Your task to perform on an android device: turn vacation reply on in the gmail app Image 0: 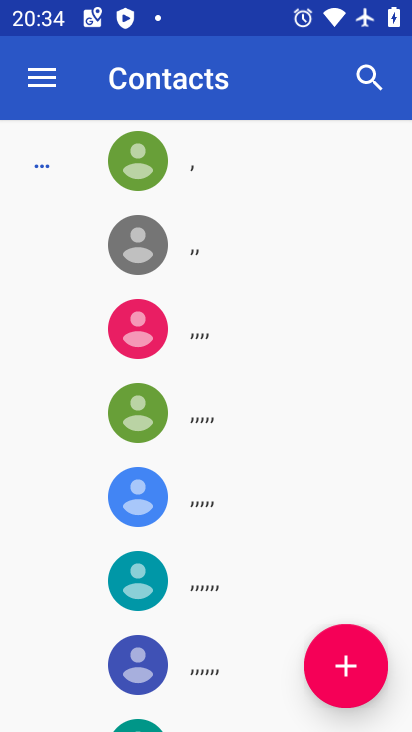
Step 0: press home button
Your task to perform on an android device: turn vacation reply on in the gmail app Image 1: 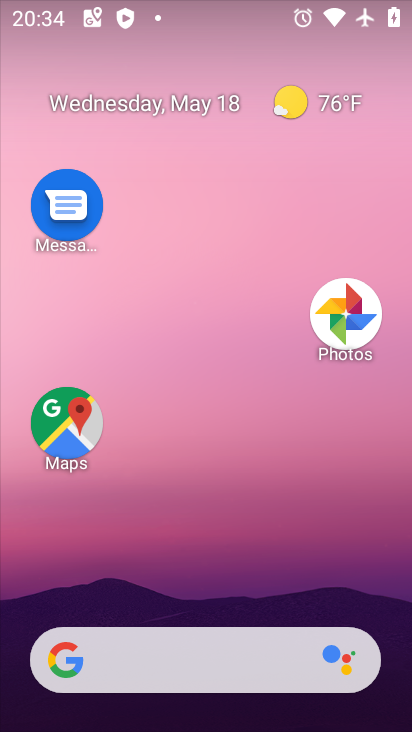
Step 1: drag from (216, 610) to (289, 51)
Your task to perform on an android device: turn vacation reply on in the gmail app Image 2: 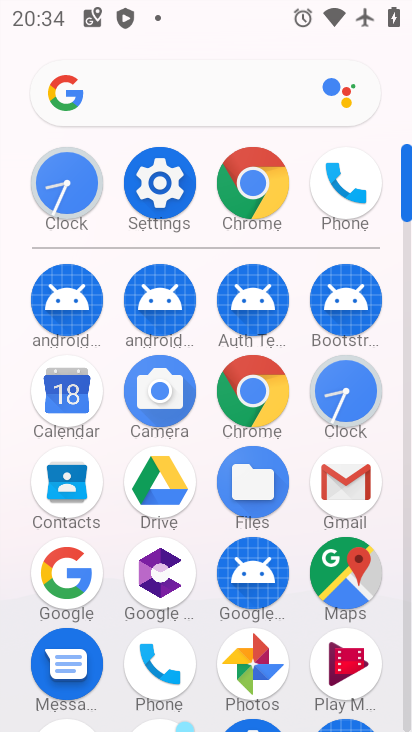
Step 2: click (347, 477)
Your task to perform on an android device: turn vacation reply on in the gmail app Image 3: 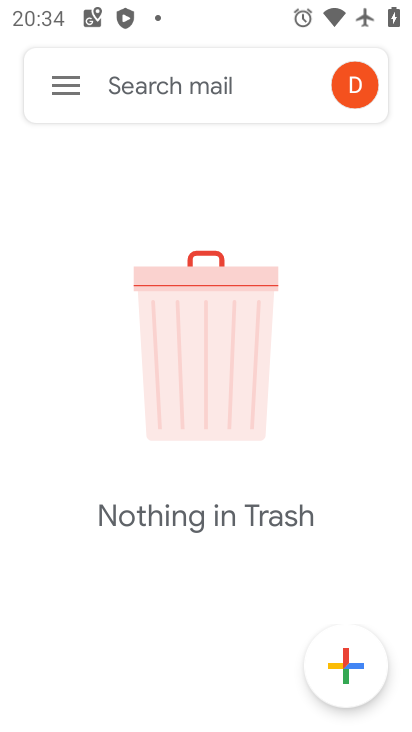
Step 3: click (78, 76)
Your task to perform on an android device: turn vacation reply on in the gmail app Image 4: 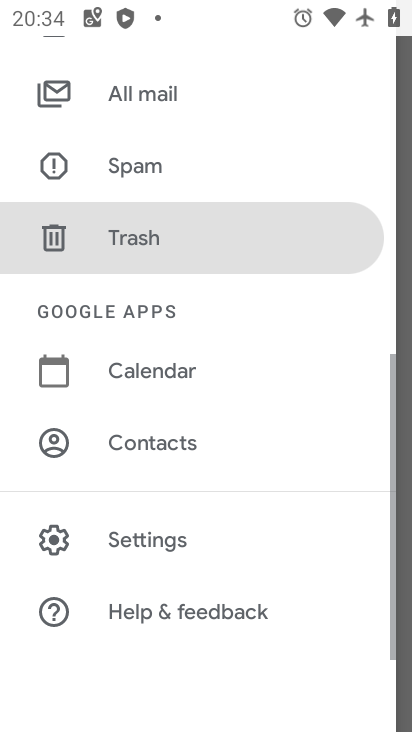
Step 4: click (143, 522)
Your task to perform on an android device: turn vacation reply on in the gmail app Image 5: 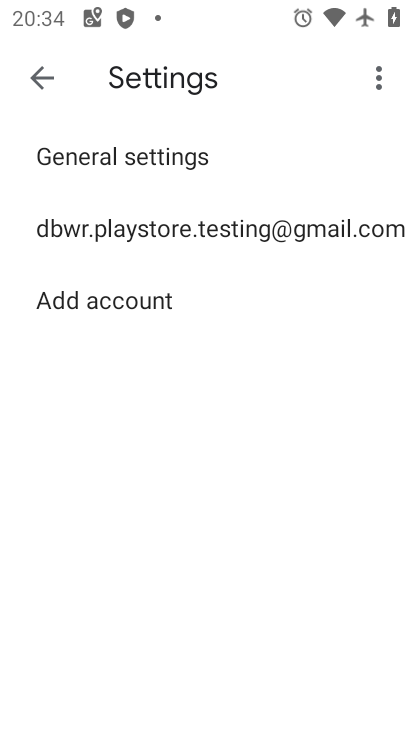
Step 5: click (136, 238)
Your task to perform on an android device: turn vacation reply on in the gmail app Image 6: 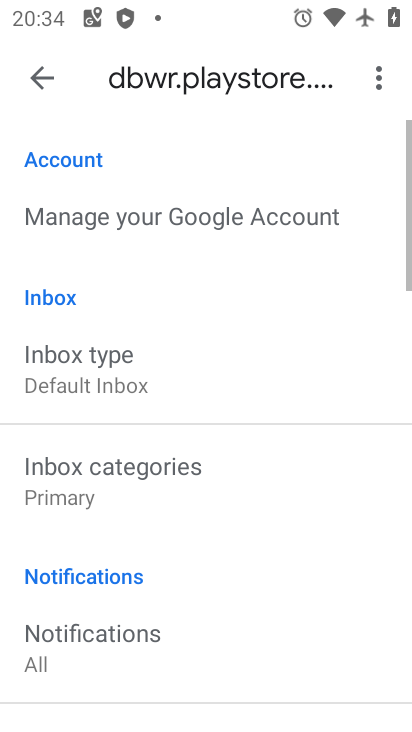
Step 6: drag from (219, 618) to (141, 56)
Your task to perform on an android device: turn vacation reply on in the gmail app Image 7: 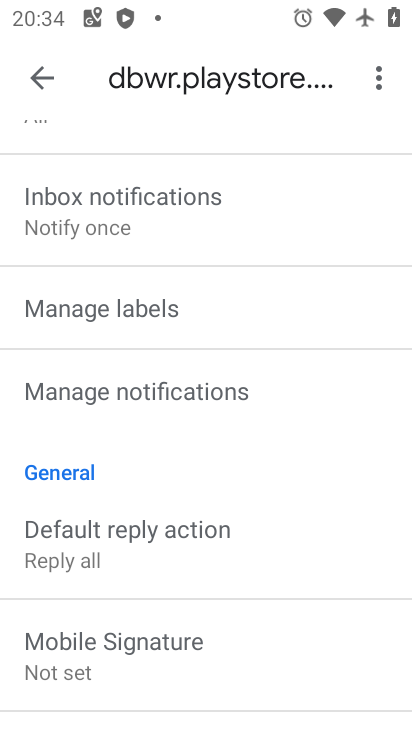
Step 7: drag from (133, 592) to (92, 48)
Your task to perform on an android device: turn vacation reply on in the gmail app Image 8: 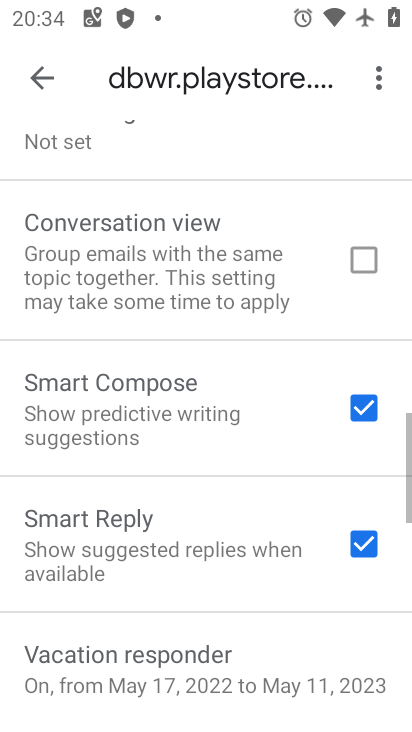
Step 8: click (142, 646)
Your task to perform on an android device: turn vacation reply on in the gmail app Image 9: 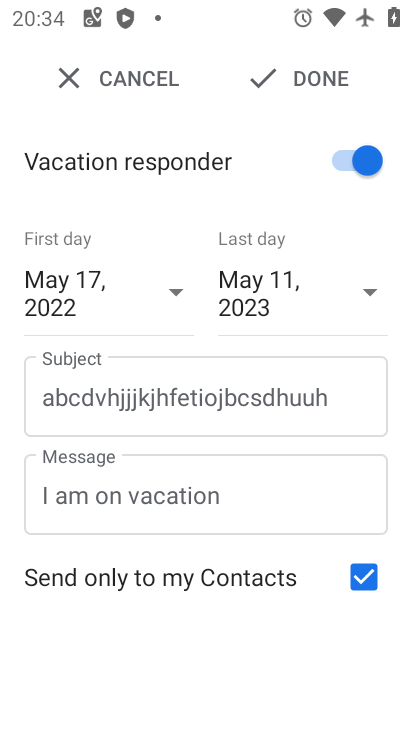
Step 9: click (351, 78)
Your task to perform on an android device: turn vacation reply on in the gmail app Image 10: 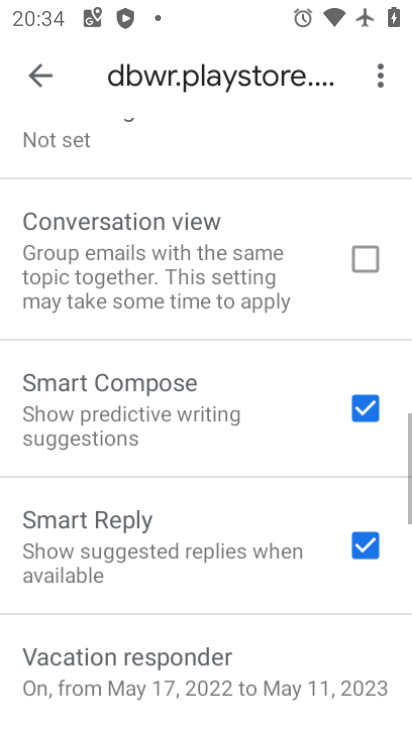
Step 10: task complete